Your task to perform on an android device: check storage Image 0: 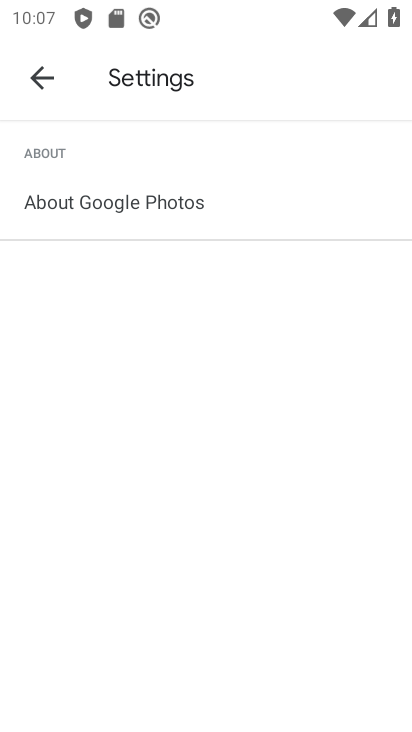
Step 0: press back button
Your task to perform on an android device: check storage Image 1: 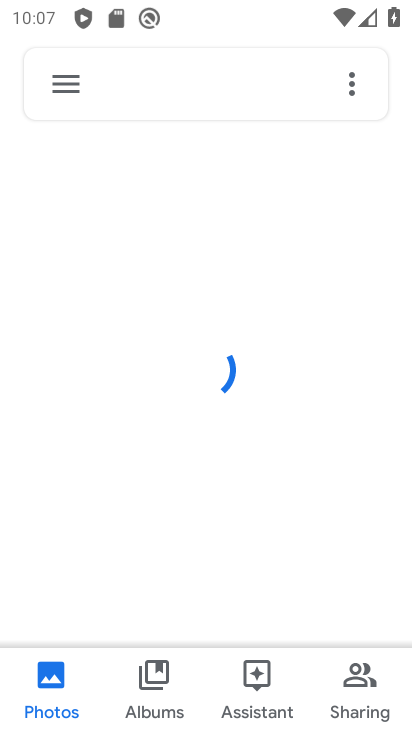
Step 1: press back button
Your task to perform on an android device: check storage Image 2: 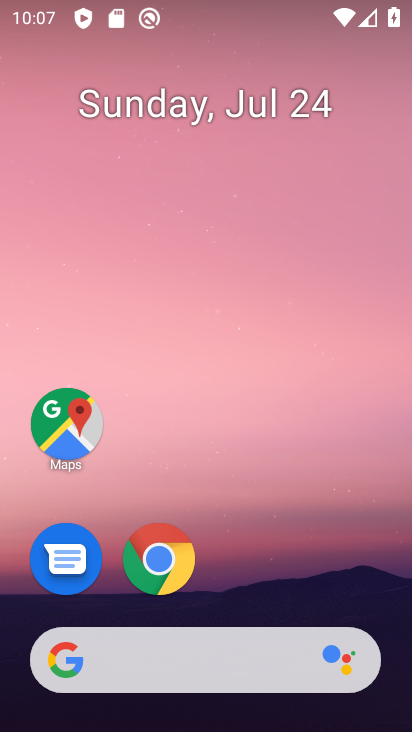
Step 2: drag from (233, 600) to (281, 18)
Your task to perform on an android device: check storage Image 3: 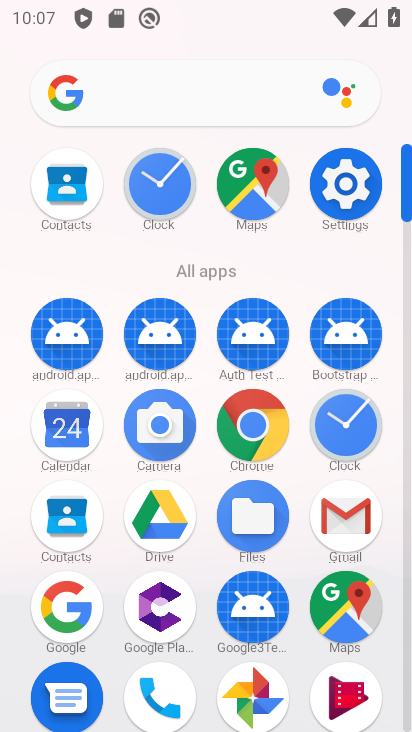
Step 3: click (359, 153)
Your task to perform on an android device: check storage Image 4: 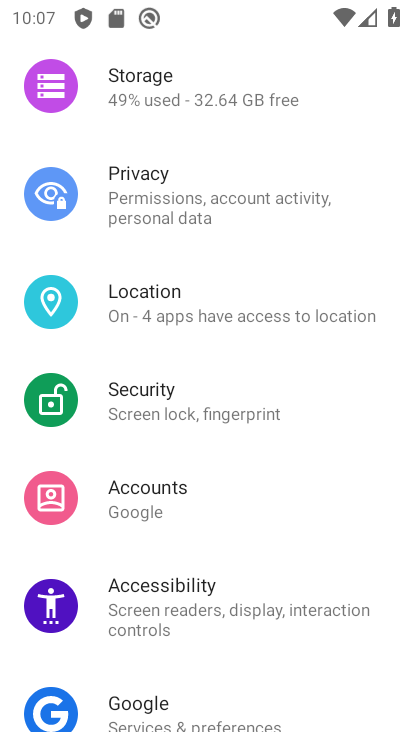
Step 4: click (151, 91)
Your task to perform on an android device: check storage Image 5: 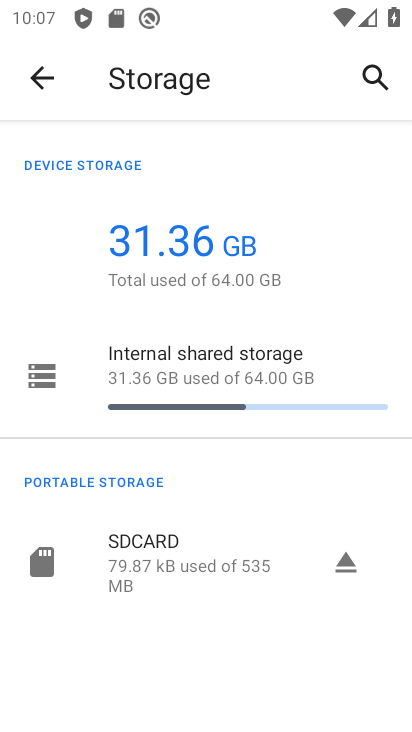
Step 5: task complete